Your task to perform on an android device: toggle notifications settings in the gmail app Image 0: 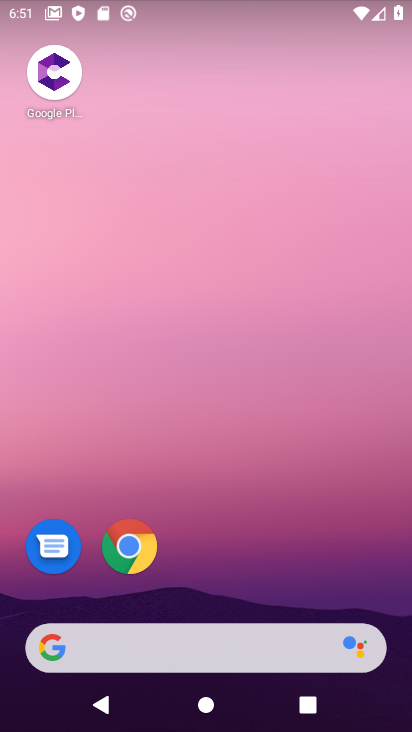
Step 0: drag from (331, 555) to (305, 161)
Your task to perform on an android device: toggle notifications settings in the gmail app Image 1: 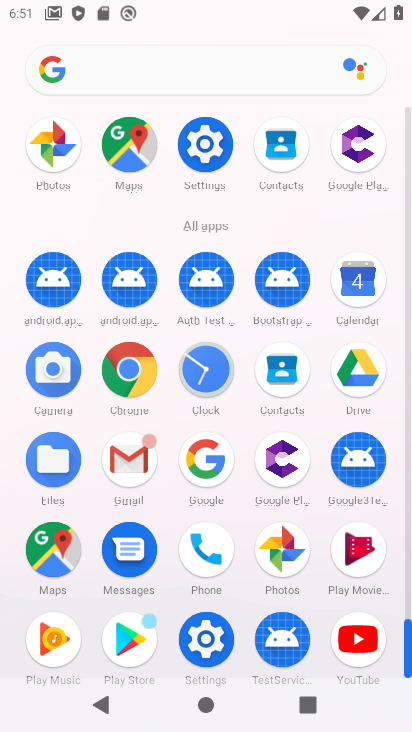
Step 1: click (142, 461)
Your task to perform on an android device: toggle notifications settings in the gmail app Image 2: 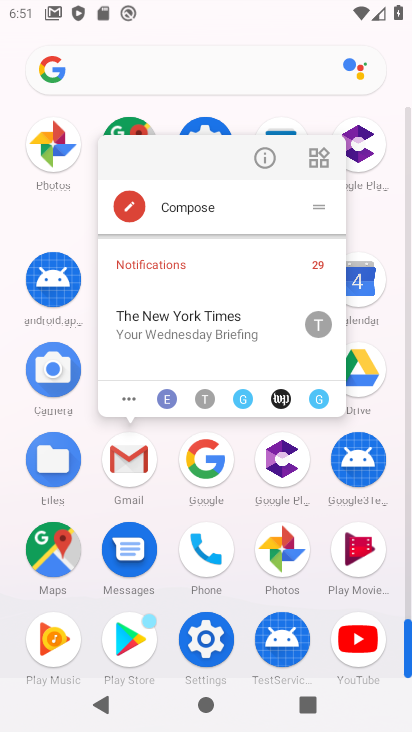
Step 2: click (262, 160)
Your task to perform on an android device: toggle notifications settings in the gmail app Image 3: 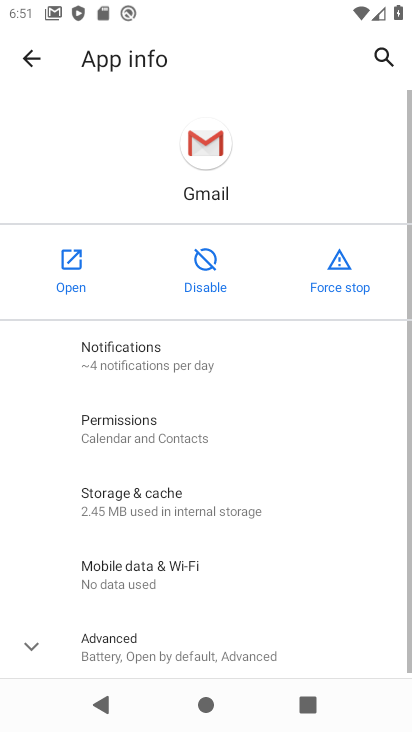
Step 3: click (175, 345)
Your task to perform on an android device: toggle notifications settings in the gmail app Image 4: 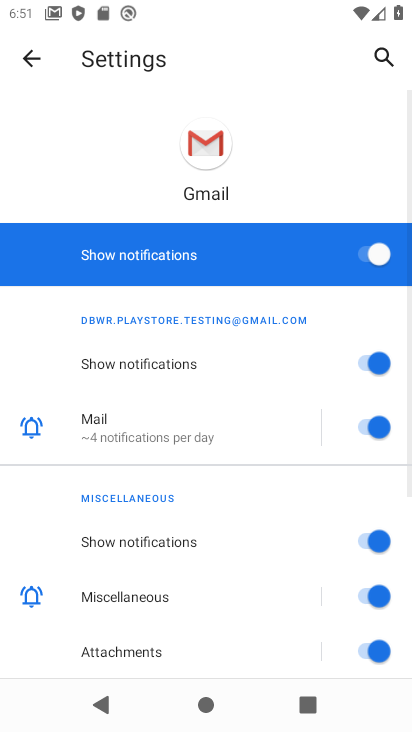
Step 4: click (372, 263)
Your task to perform on an android device: toggle notifications settings in the gmail app Image 5: 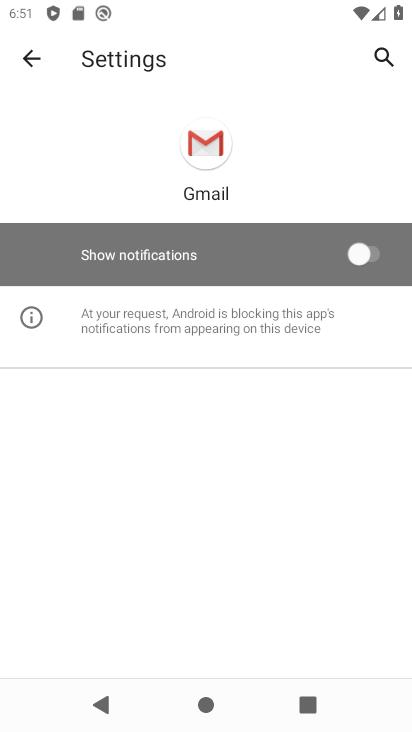
Step 5: task complete